Your task to perform on an android device: Open maps Image 0: 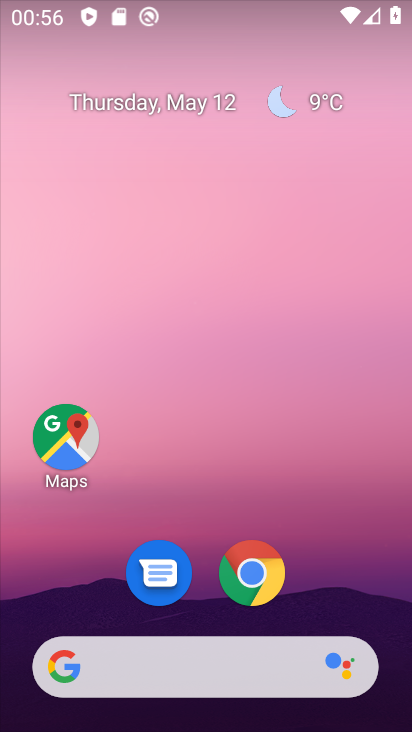
Step 0: click (46, 449)
Your task to perform on an android device: Open maps Image 1: 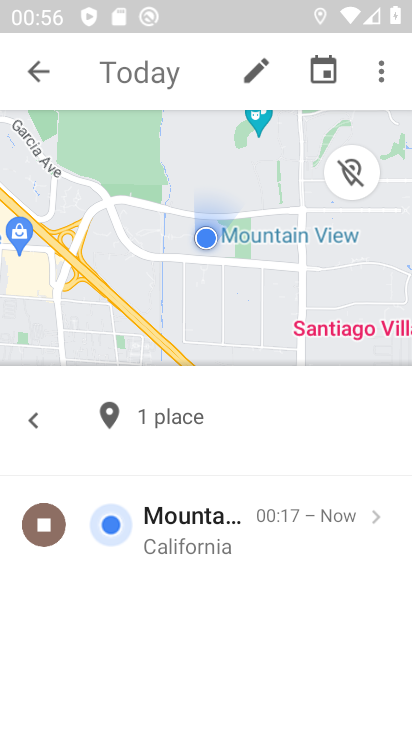
Step 1: click (33, 63)
Your task to perform on an android device: Open maps Image 2: 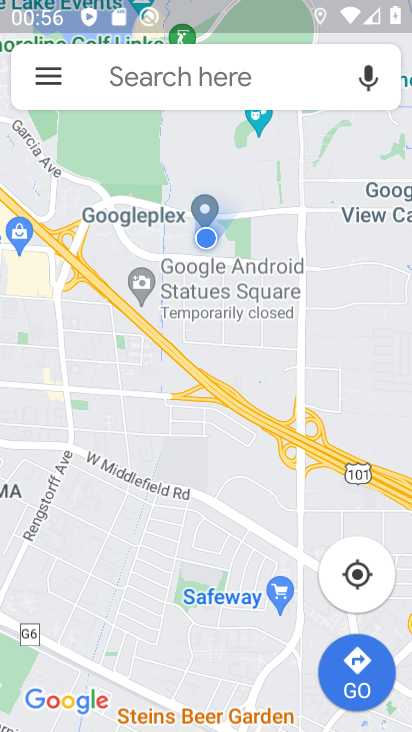
Step 2: task complete